Your task to perform on an android device: Open accessibility settings Image 0: 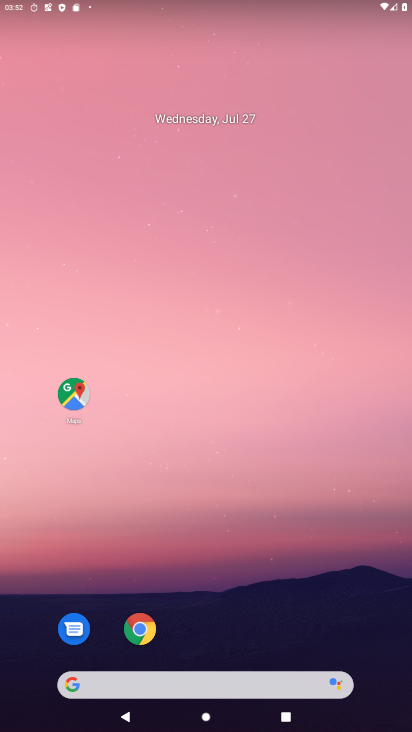
Step 0: drag from (285, 496) to (283, 73)
Your task to perform on an android device: Open accessibility settings Image 1: 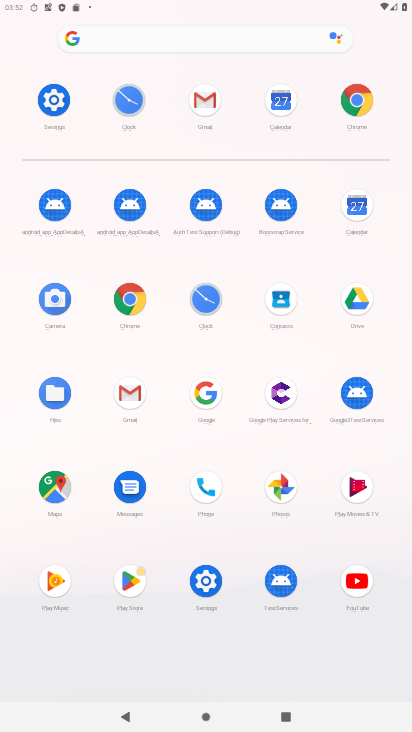
Step 1: click (54, 99)
Your task to perform on an android device: Open accessibility settings Image 2: 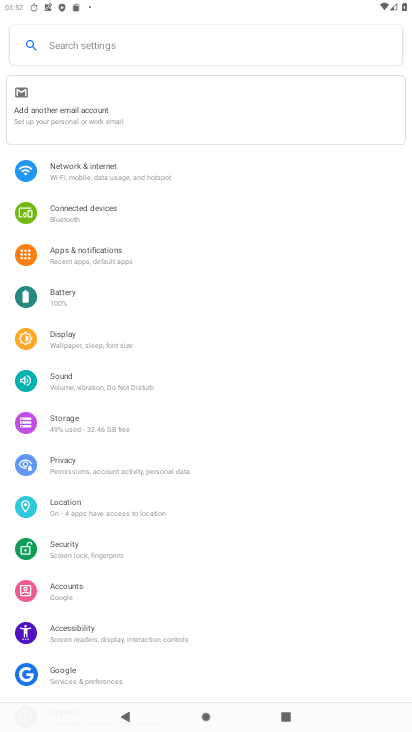
Step 2: drag from (237, 580) to (291, 133)
Your task to perform on an android device: Open accessibility settings Image 3: 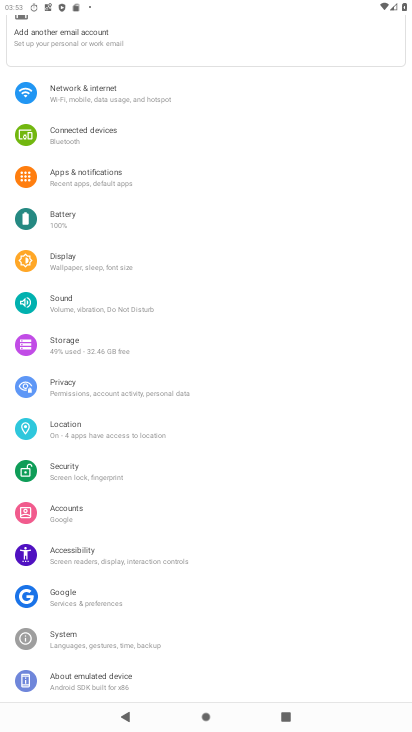
Step 3: click (95, 547)
Your task to perform on an android device: Open accessibility settings Image 4: 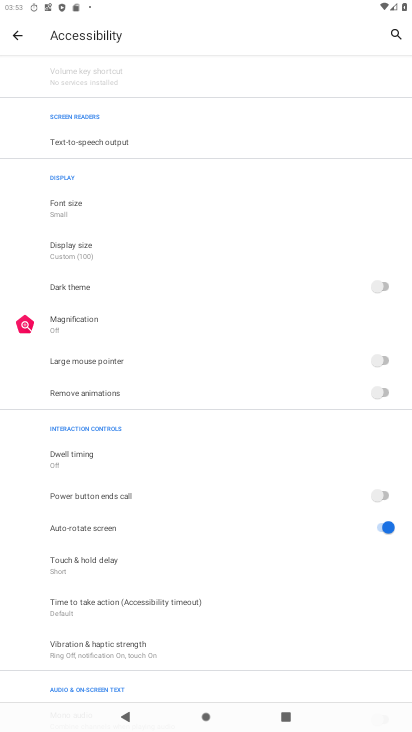
Step 4: task complete